Your task to perform on an android device: turn notification dots on Image 0: 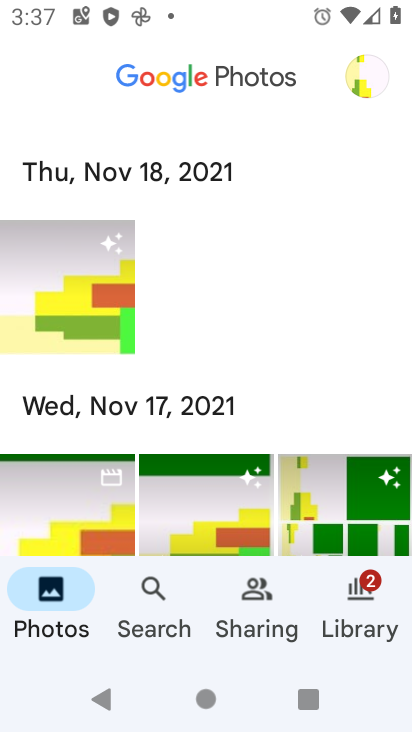
Step 0: press home button
Your task to perform on an android device: turn notification dots on Image 1: 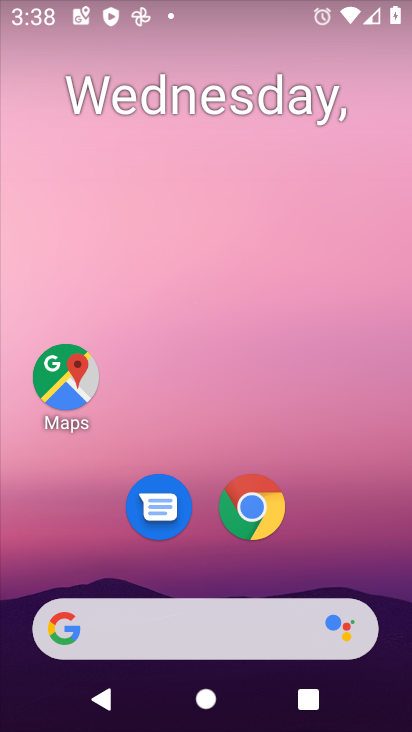
Step 1: drag from (357, 551) to (337, 260)
Your task to perform on an android device: turn notification dots on Image 2: 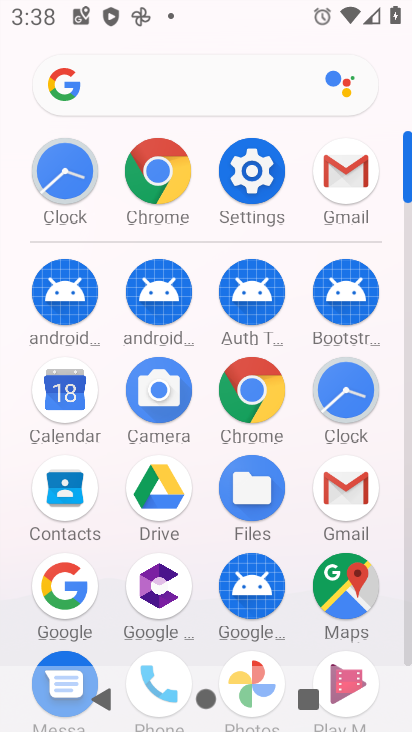
Step 2: click (253, 162)
Your task to perform on an android device: turn notification dots on Image 3: 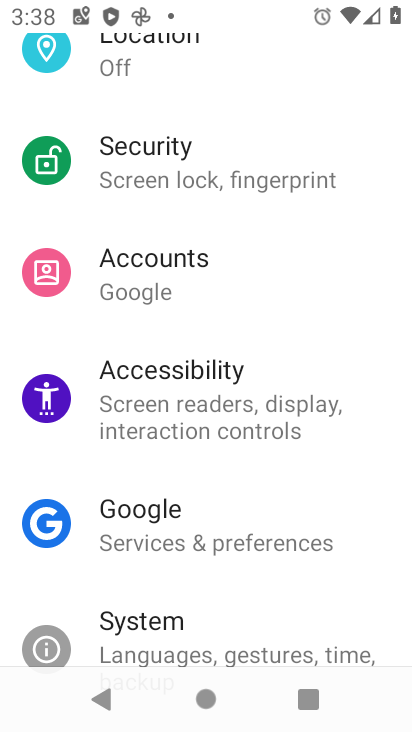
Step 3: drag from (284, 94) to (297, 478)
Your task to perform on an android device: turn notification dots on Image 4: 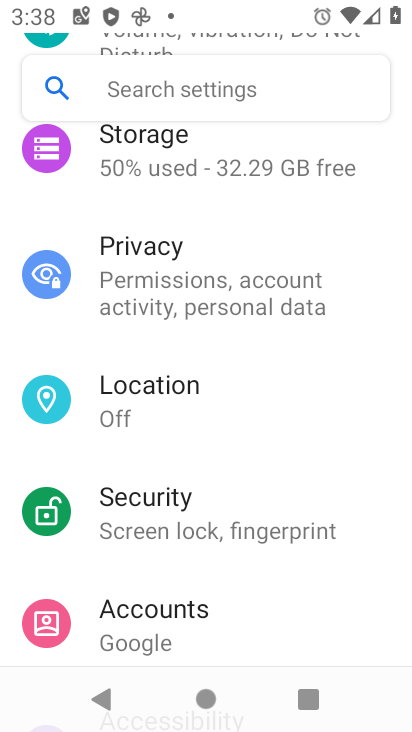
Step 4: drag from (325, 143) to (368, 545)
Your task to perform on an android device: turn notification dots on Image 5: 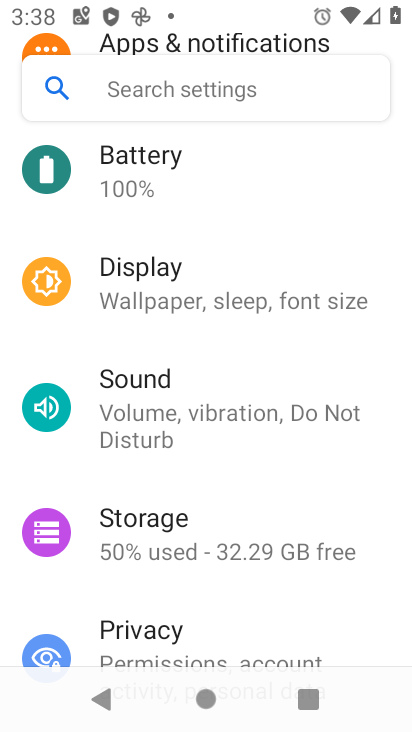
Step 5: drag from (196, 179) to (226, 549)
Your task to perform on an android device: turn notification dots on Image 6: 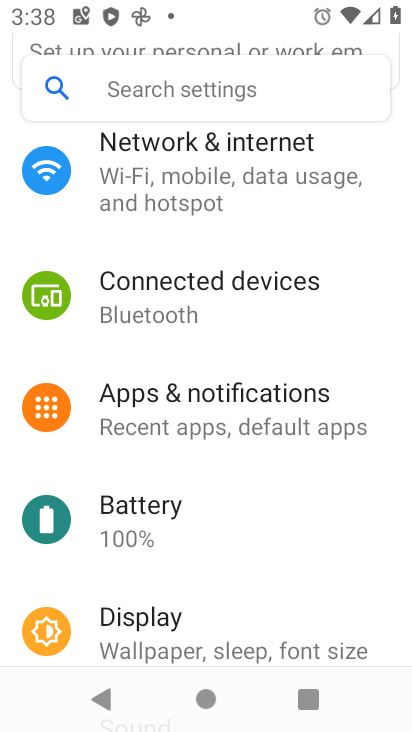
Step 6: click (203, 412)
Your task to perform on an android device: turn notification dots on Image 7: 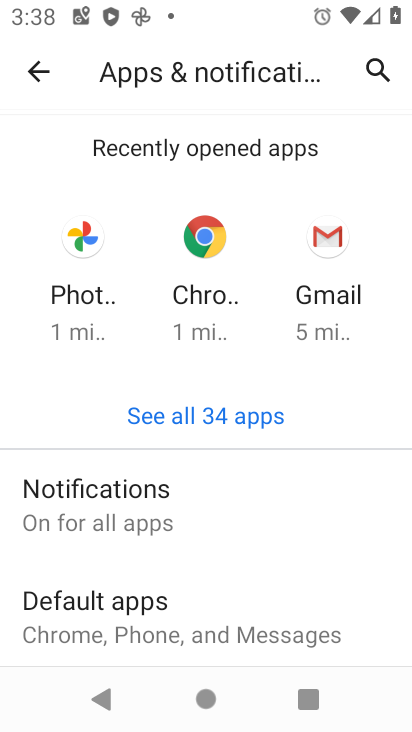
Step 7: drag from (231, 557) to (249, 109)
Your task to perform on an android device: turn notification dots on Image 8: 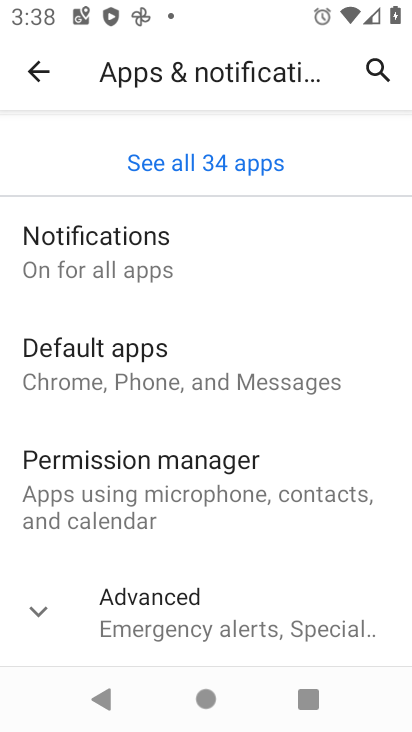
Step 8: click (217, 581)
Your task to perform on an android device: turn notification dots on Image 9: 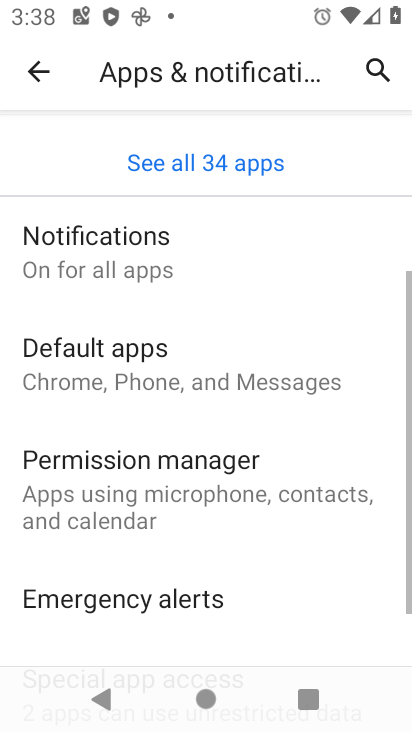
Step 9: drag from (218, 593) to (212, 374)
Your task to perform on an android device: turn notification dots on Image 10: 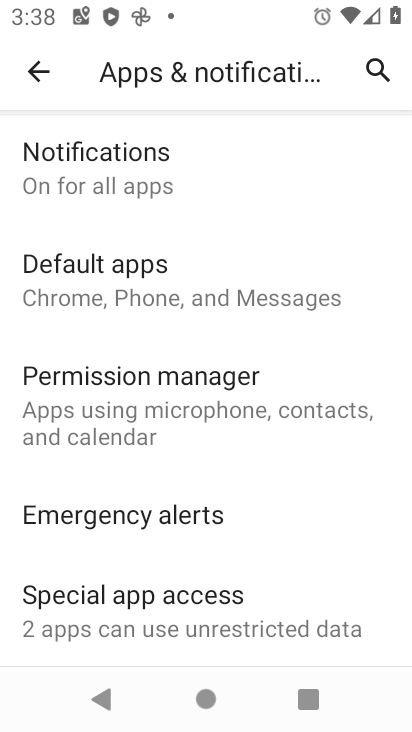
Step 10: drag from (162, 619) to (147, 390)
Your task to perform on an android device: turn notification dots on Image 11: 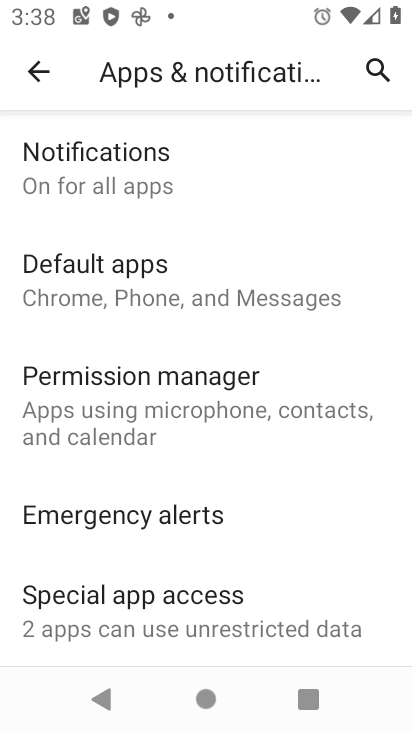
Step 11: drag from (279, 332) to (324, 543)
Your task to perform on an android device: turn notification dots on Image 12: 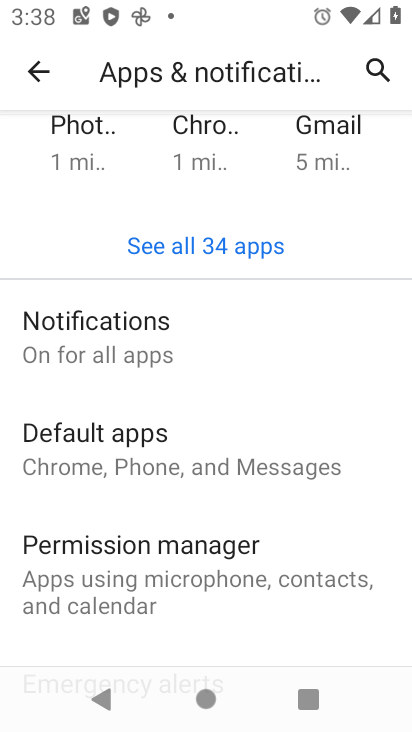
Step 12: press back button
Your task to perform on an android device: turn notification dots on Image 13: 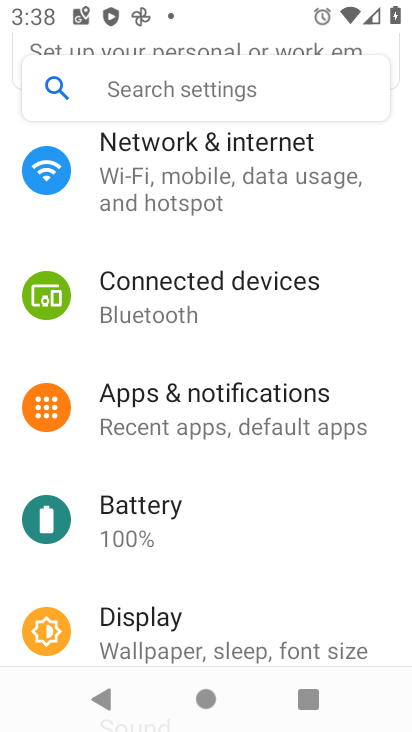
Step 13: drag from (265, 538) to (241, 262)
Your task to perform on an android device: turn notification dots on Image 14: 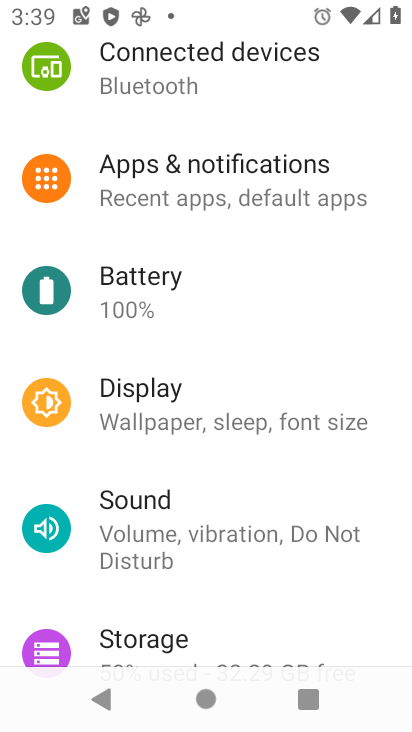
Step 14: drag from (164, 546) to (163, 400)
Your task to perform on an android device: turn notification dots on Image 15: 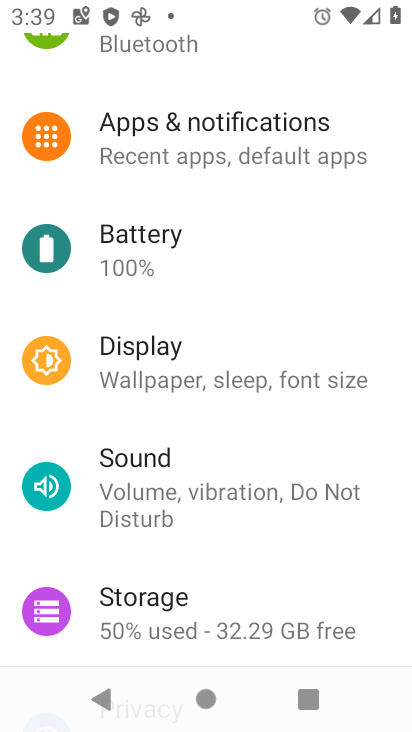
Step 15: click (136, 497)
Your task to perform on an android device: turn notification dots on Image 16: 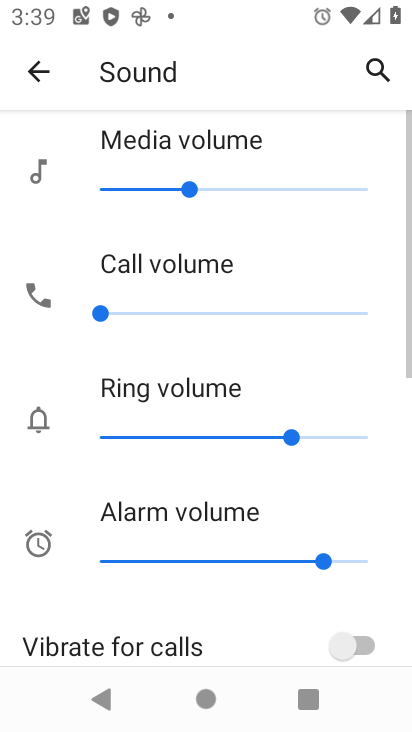
Step 16: drag from (227, 592) to (259, 142)
Your task to perform on an android device: turn notification dots on Image 17: 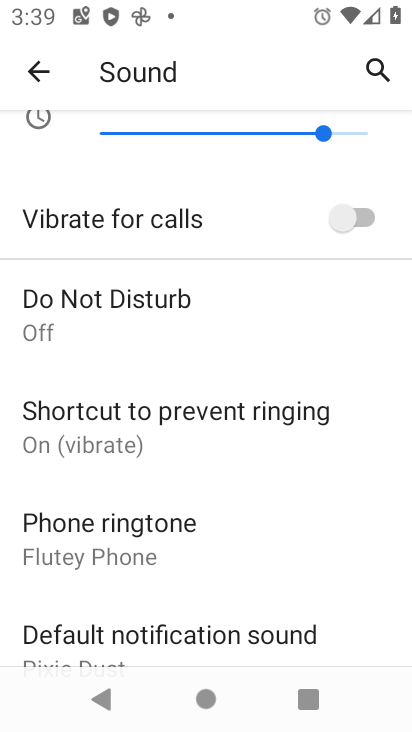
Step 17: drag from (200, 514) to (174, 172)
Your task to perform on an android device: turn notification dots on Image 18: 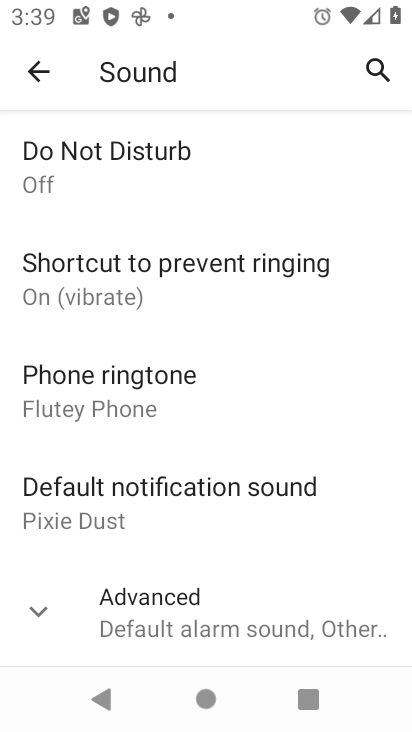
Step 18: click (200, 606)
Your task to perform on an android device: turn notification dots on Image 19: 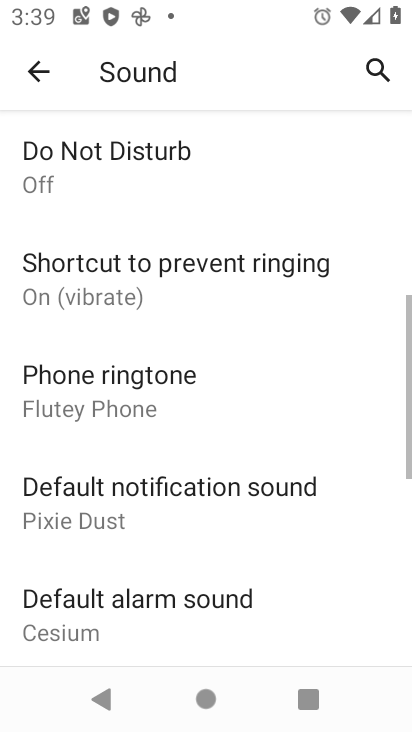
Step 19: drag from (200, 605) to (197, 259)
Your task to perform on an android device: turn notification dots on Image 20: 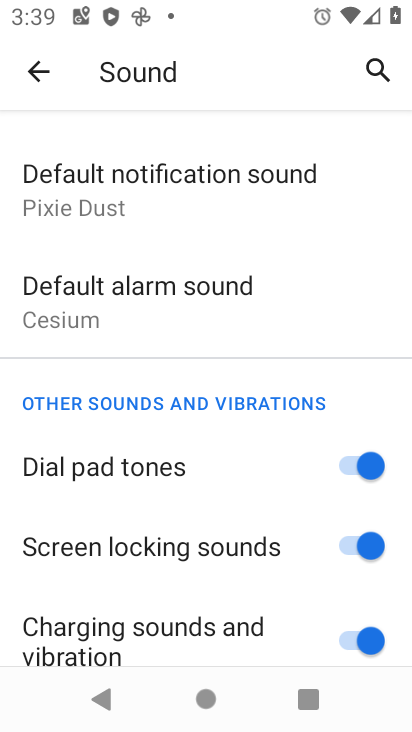
Step 20: drag from (221, 569) to (189, 327)
Your task to perform on an android device: turn notification dots on Image 21: 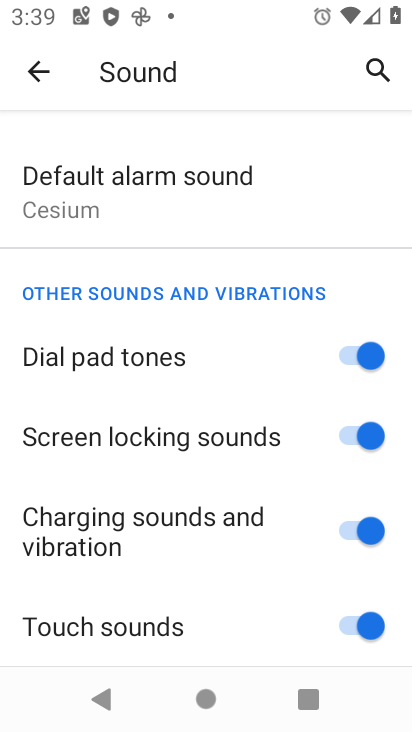
Step 21: drag from (136, 578) to (115, 301)
Your task to perform on an android device: turn notification dots on Image 22: 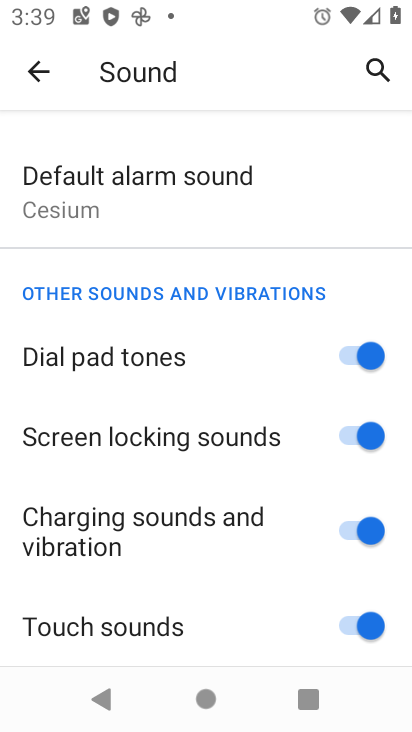
Step 22: press back button
Your task to perform on an android device: turn notification dots on Image 23: 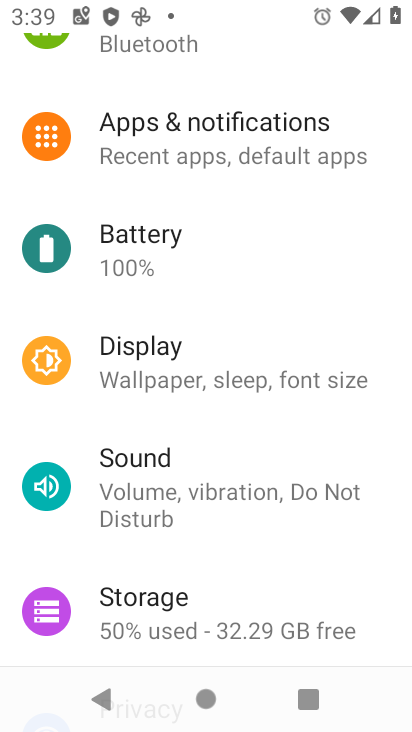
Step 23: drag from (259, 557) to (288, 261)
Your task to perform on an android device: turn notification dots on Image 24: 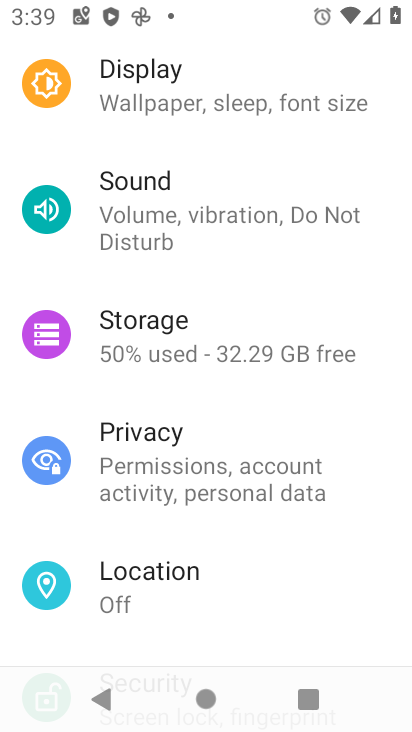
Step 24: drag from (171, 501) to (200, 324)
Your task to perform on an android device: turn notification dots on Image 25: 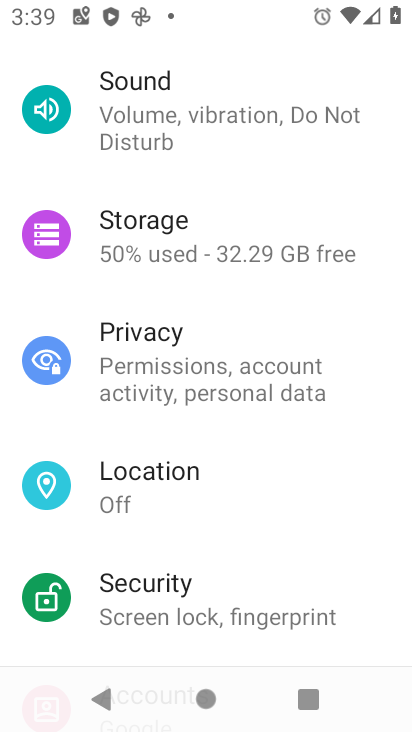
Step 25: drag from (221, 576) to (221, 367)
Your task to perform on an android device: turn notification dots on Image 26: 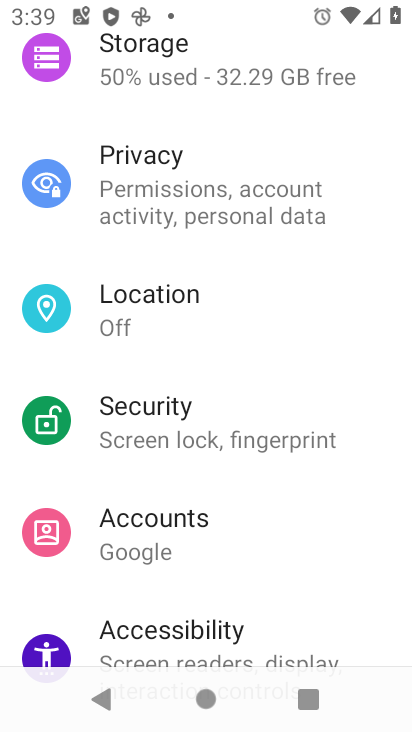
Step 26: drag from (252, 536) to (252, 311)
Your task to perform on an android device: turn notification dots on Image 27: 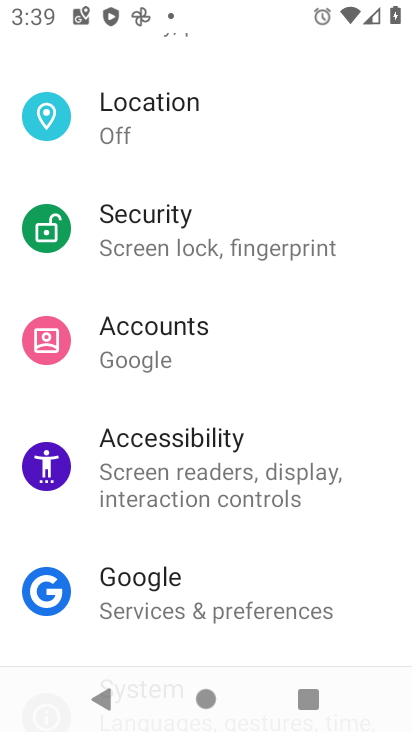
Step 27: drag from (259, 568) to (265, 404)
Your task to perform on an android device: turn notification dots on Image 28: 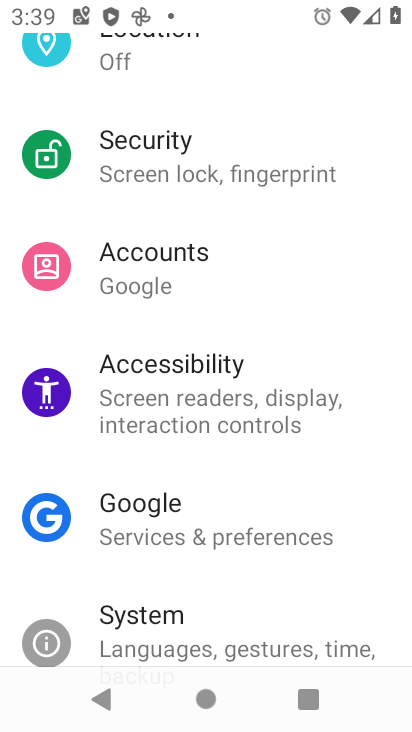
Step 28: drag from (236, 706) to (236, 496)
Your task to perform on an android device: turn notification dots on Image 29: 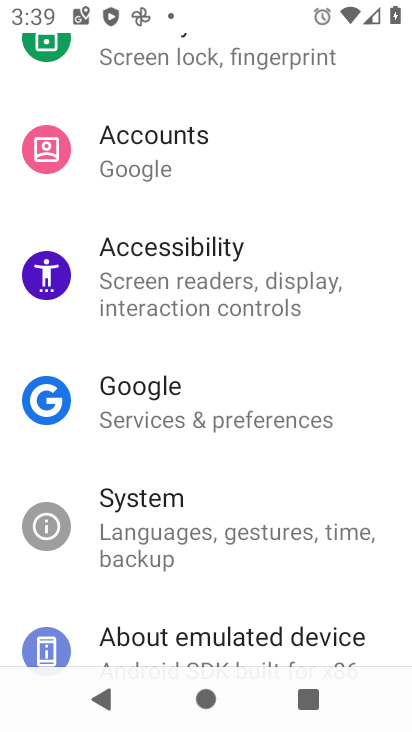
Step 29: drag from (243, 529) to (263, 373)
Your task to perform on an android device: turn notification dots on Image 30: 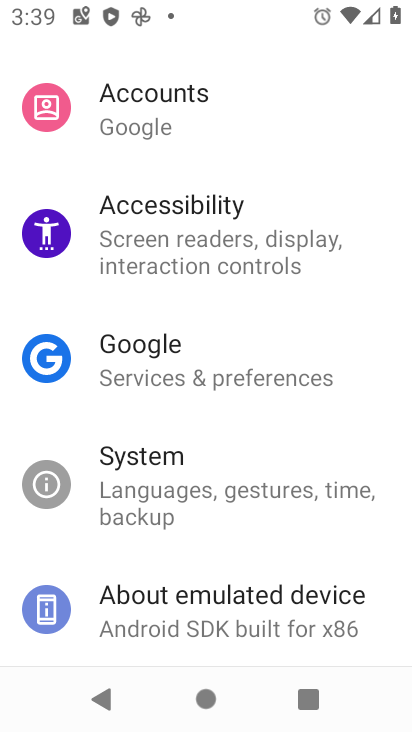
Step 30: drag from (300, 190) to (335, 569)
Your task to perform on an android device: turn notification dots on Image 31: 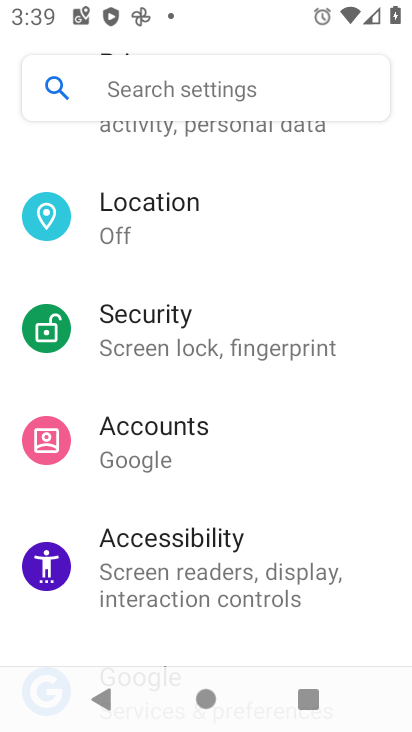
Step 31: drag from (257, 273) to (305, 589)
Your task to perform on an android device: turn notification dots on Image 32: 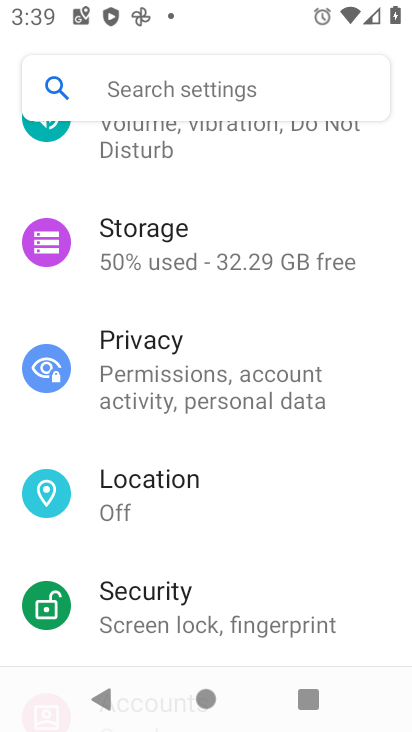
Step 32: drag from (259, 373) to (283, 580)
Your task to perform on an android device: turn notification dots on Image 33: 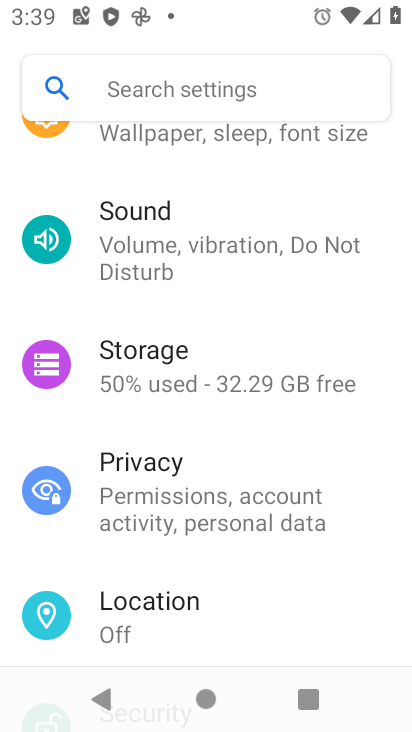
Step 33: drag from (249, 306) to (292, 615)
Your task to perform on an android device: turn notification dots on Image 34: 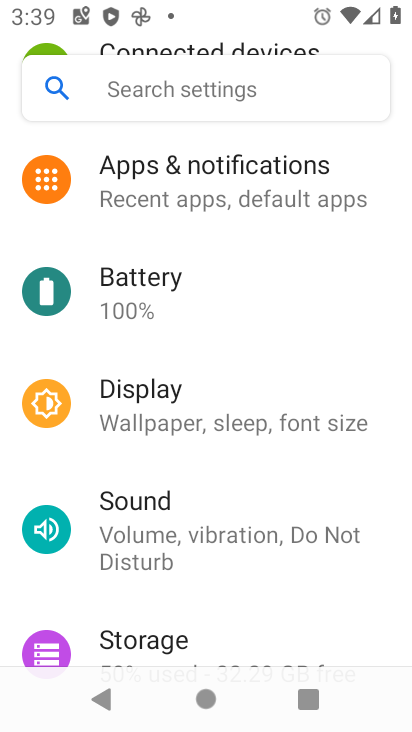
Step 34: click (274, 178)
Your task to perform on an android device: turn notification dots on Image 35: 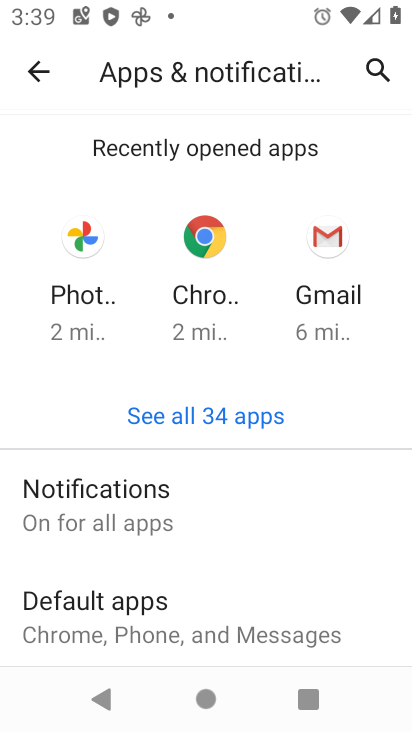
Step 35: click (135, 509)
Your task to perform on an android device: turn notification dots on Image 36: 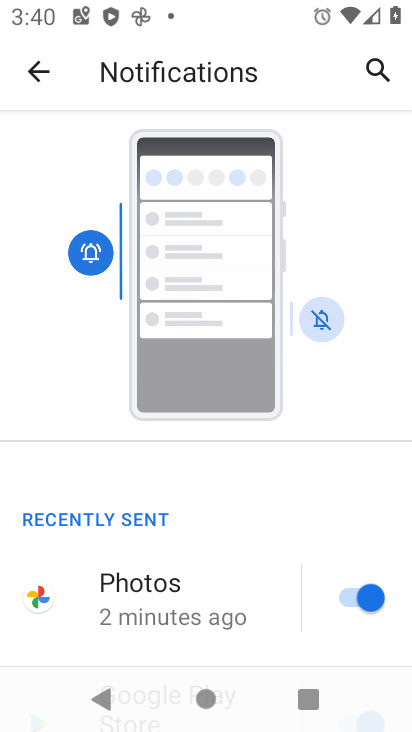
Step 36: drag from (260, 604) to (267, 253)
Your task to perform on an android device: turn notification dots on Image 37: 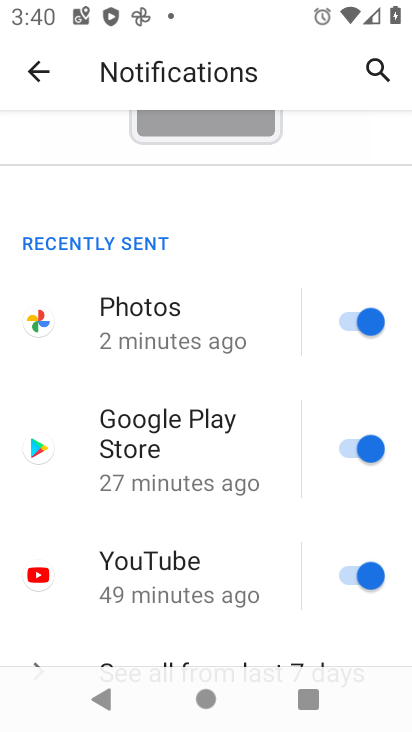
Step 37: drag from (175, 645) to (201, 369)
Your task to perform on an android device: turn notification dots on Image 38: 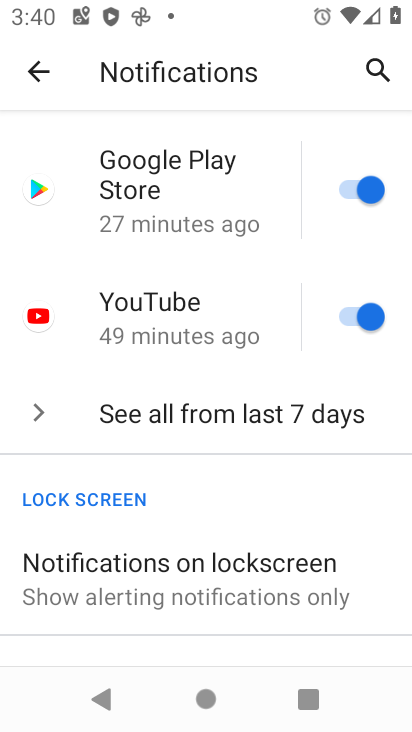
Step 38: drag from (192, 545) to (187, 252)
Your task to perform on an android device: turn notification dots on Image 39: 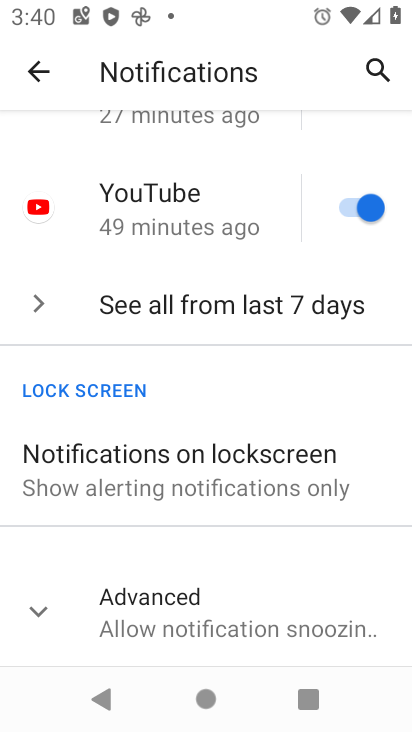
Step 39: click (175, 600)
Your task to perform on an android device: turn notification dots on Image 40: 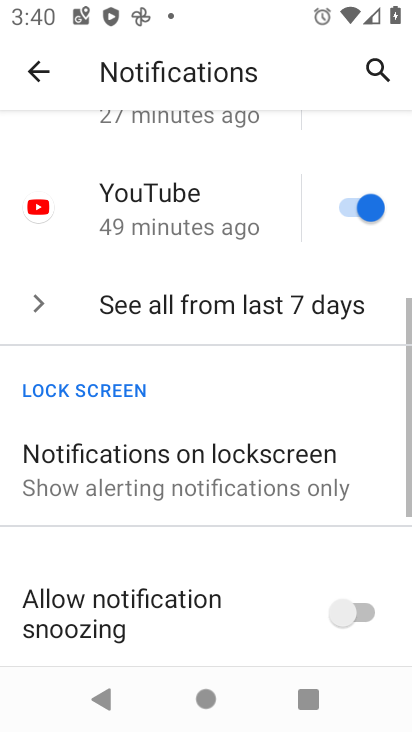
Step 40: task complete